Your task to perform on an android device: clear history in the chrome app Image 0: 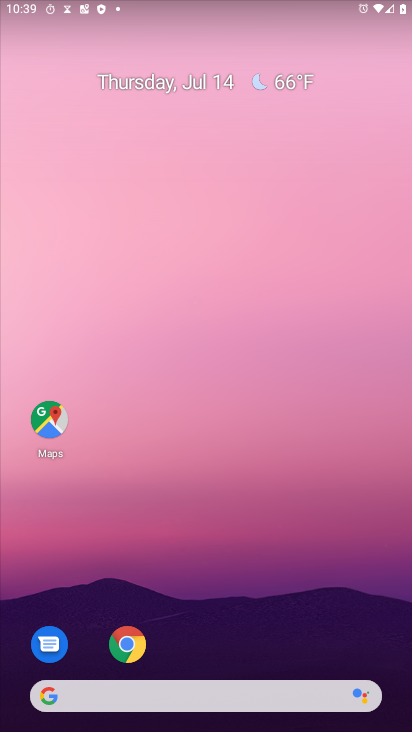
Step 0: drag from (206, 509) to (175, 257)
Your task to perform on an android device: clear history in the chrome app Image 1: 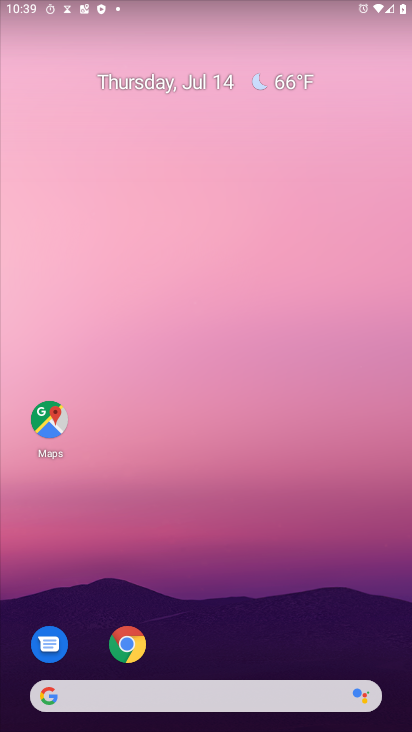
Step 1: drag from (262, 637) to (212, 307)
Your task to perform on an android device: clear history in the chrome app Image 2: 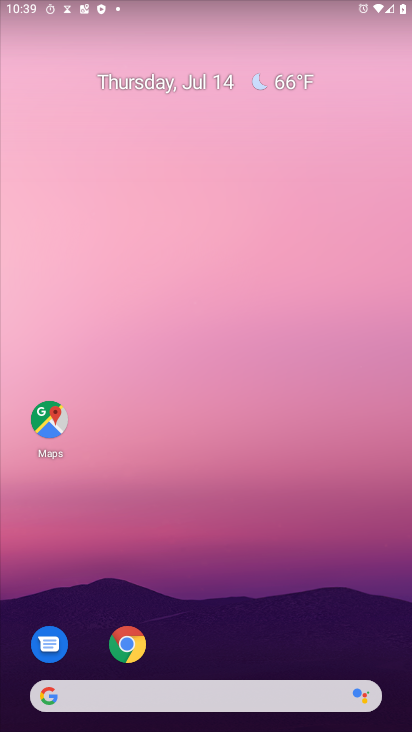
Step 2: drag from (228, 631) to (161, 177)
Your task to perform on an android device: clear history in the chrome app Image 3: 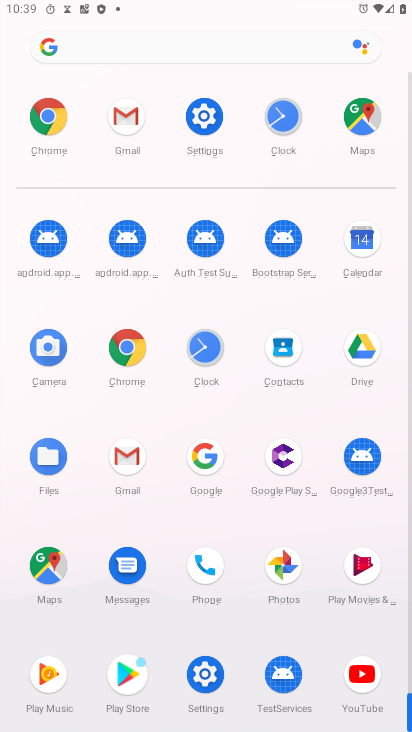
Step 3: drag from (229, 620) to (164, 175)
Your task to perform on an android device: clear history in the chrome app Image 4: 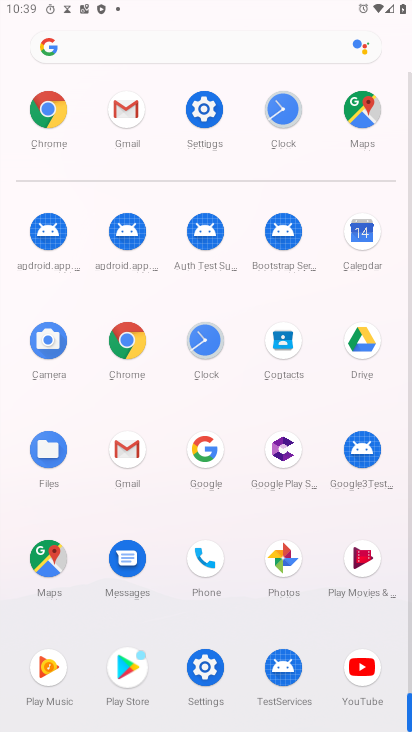
Step 4: click (126, 340)
Your task to perform on an android device: clear history in the chrome app Image 5: 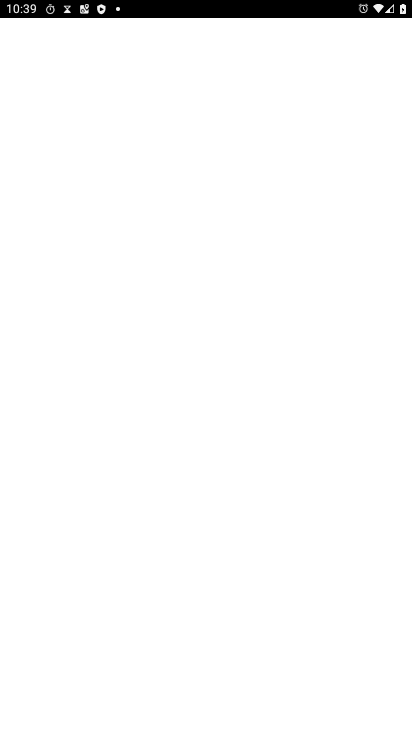
Step 5: click (125, 339)
Your task to perform on an android device: clear history in the chrome app Image 6: 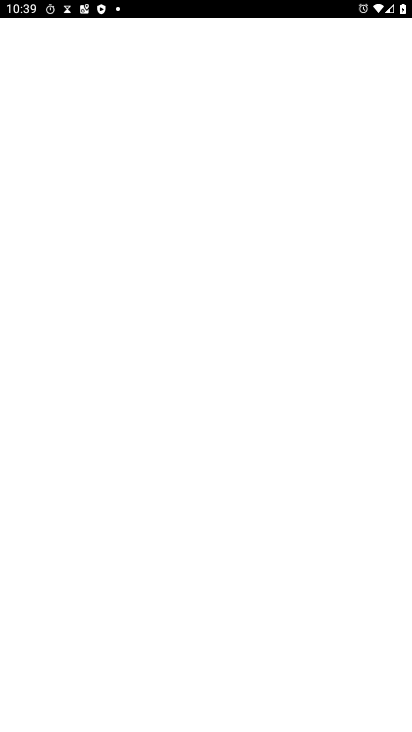
Step 6: click (125, 342)
Your task to perform on an android device: clear history in the chrome app Image 7: 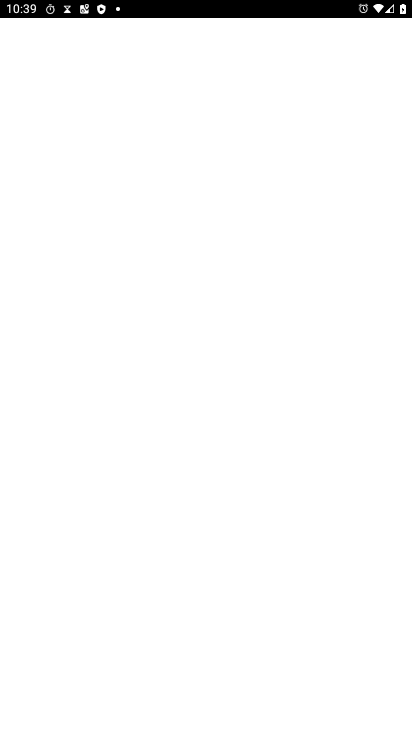
Step 7: click (127, 350)
Your task to perform on an android device: clear history in the chrome app Image 8: 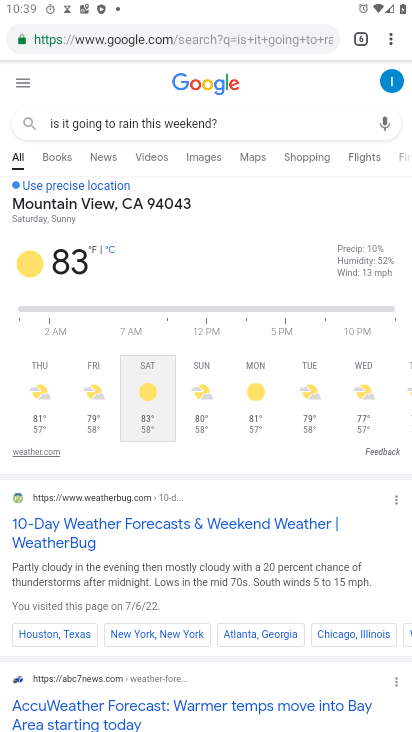
Step 8: drag from (390, 37) to (237, 228)
Your task to perform on an android device: clear history in the chrome app Image 9: 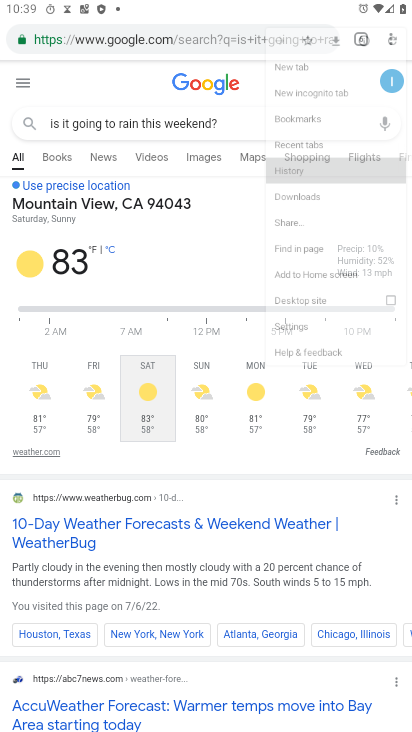
Step 9: click (238, 227)
Your task to perform on an android device: clear history in the chrome app Image 10: 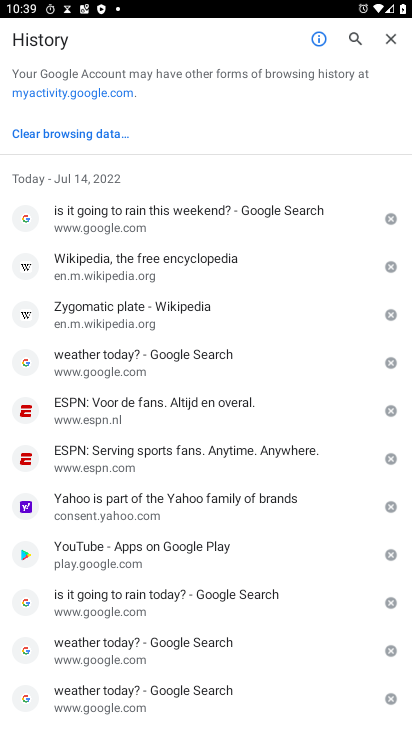
Step 10: click (57, 133)
Your task to perform on an android device: clear history in the chrome app Image 11: 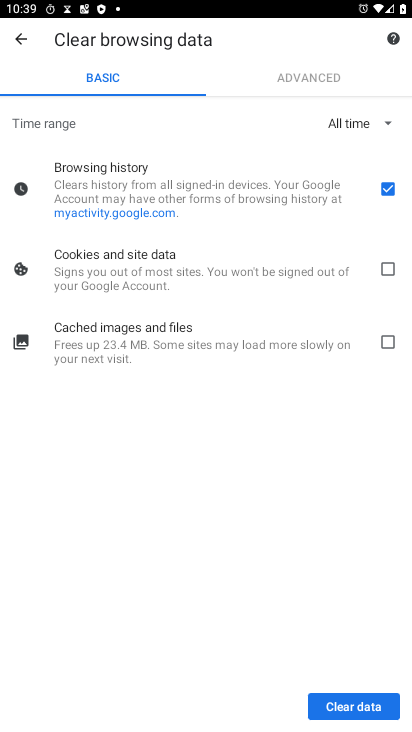
Step 11: click (362, 701)
Your task to perform on an android device: clear history in the chrome app Image 12: 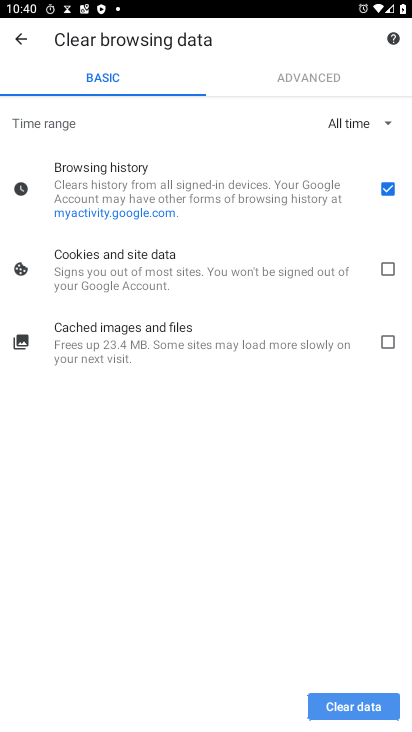
Step 12: click (357, 706)
Your task to perform on an android device: clear history in the chrome app Image 13: 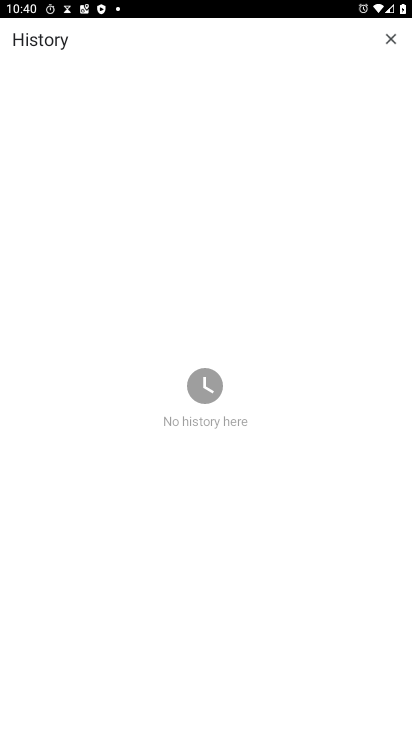
Step 13: task complete